Your task to perform on an android device: toggle improve location accuracy Image 0: 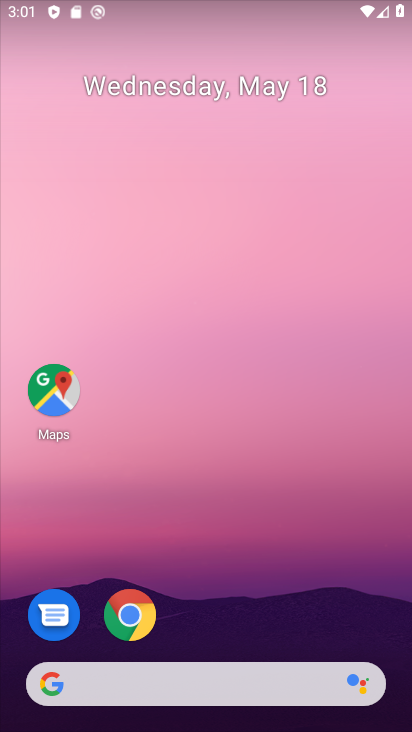
Step 0: drag from (195, 660) to (284, 180)
Your task to perform on an android device: toggle improve location accuracy Image 1: 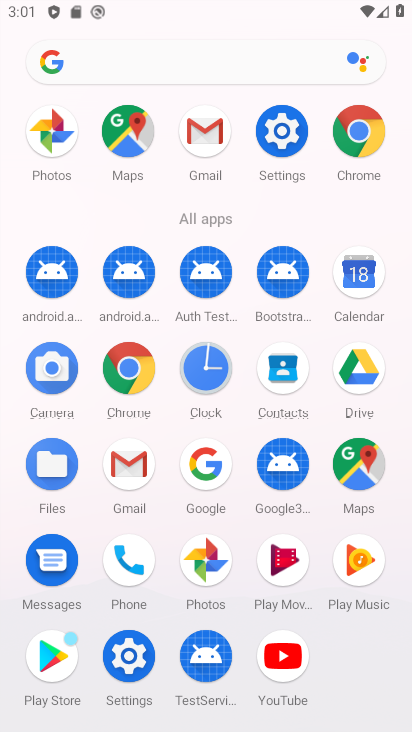
Step 1: click (144, 677)
Your task to perform on an android device: toggle improve location accuracy Image 2: 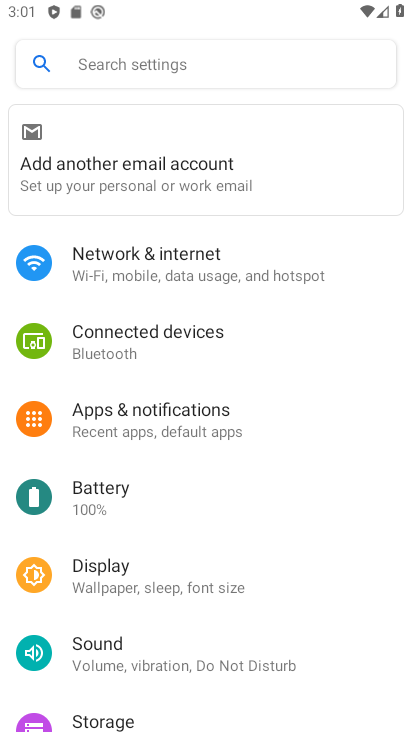
Step 2: drag from (122, 615) to (286, 234)
Your task to perform on an android device: toggle improve location accuracy Image 3: 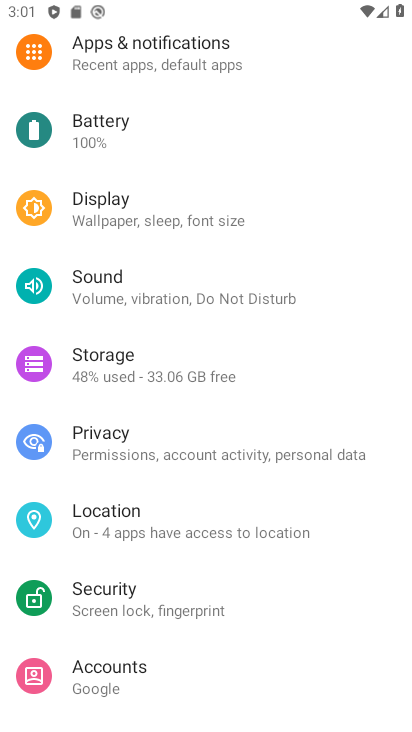
Step 3: click (188, 527)
Your task to perform on an android device: toggle improve location accuracy Image 4: 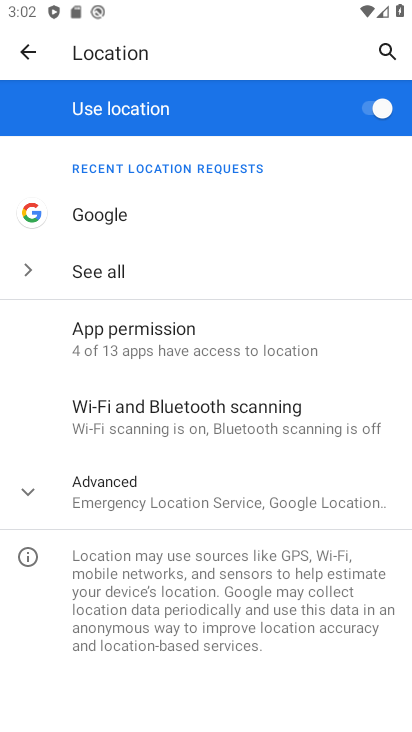
Step 4: click (232, 498)
Your task to perform on an android device: toggle improve location accuracy Image 5: 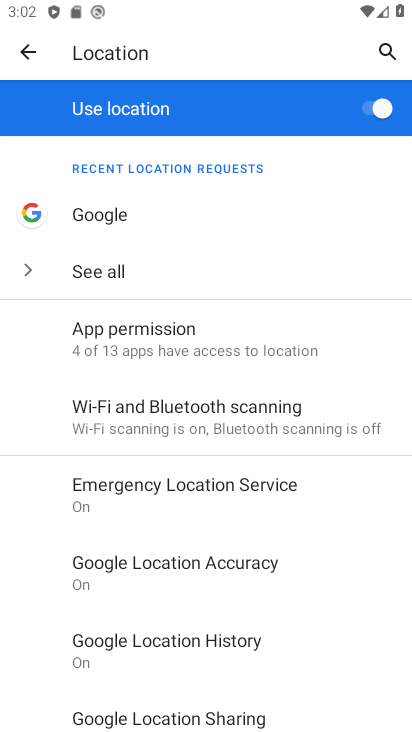
Step 5: drag from (259, 668) to (305, 533)
Your task to perform on an android device: toggle improve location accuracy Image 6: 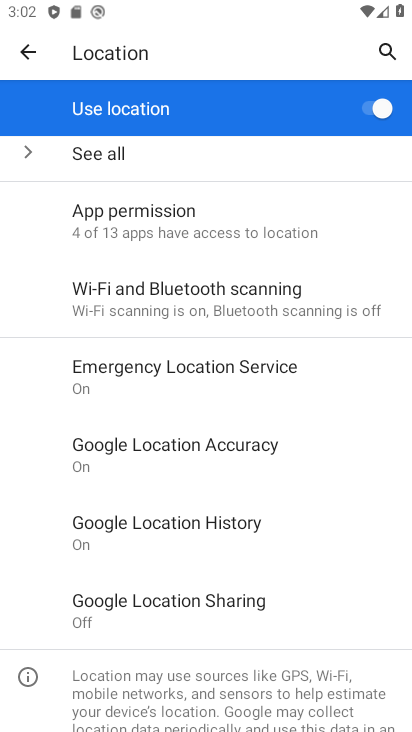
Step 6: click (277, 459)
Your task to perform on an android device: toggle improve location accuracy Image 7: 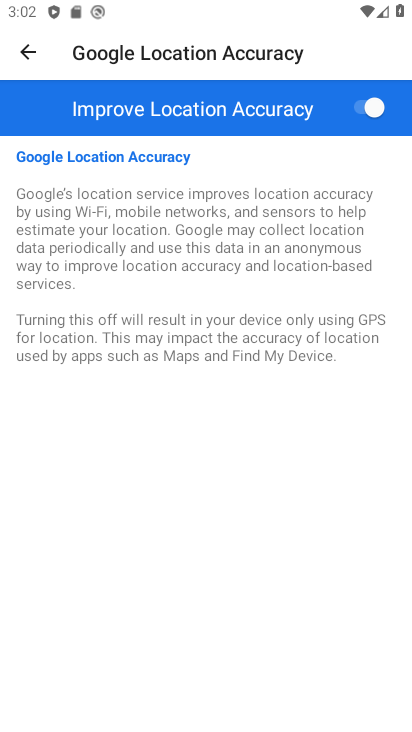
Step 7: click (355, 109)
Your task to perform on an android device: toggle improve location accuracy Image 8: 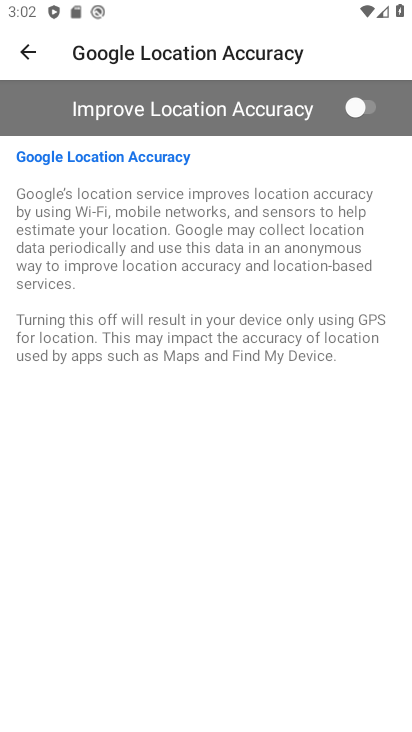
Step 8: task complete